Your task to perform on an android device: add a label to a message in the gmail app Image 0: 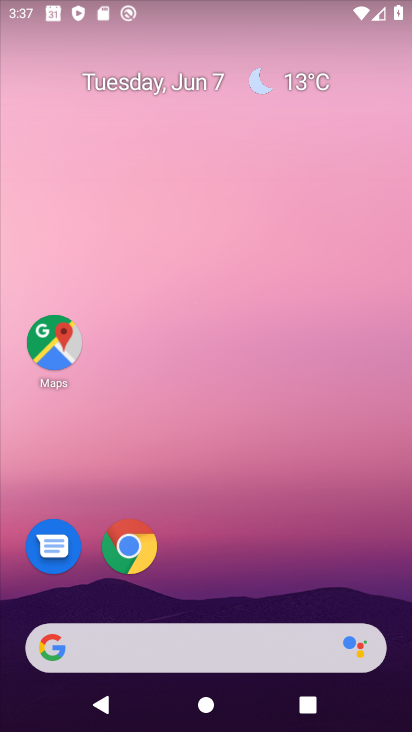
Step 0: drag from (205, 583) to (168, 139)
Your task to perform on an android device: add a label to a message in the gmail app Image 1: 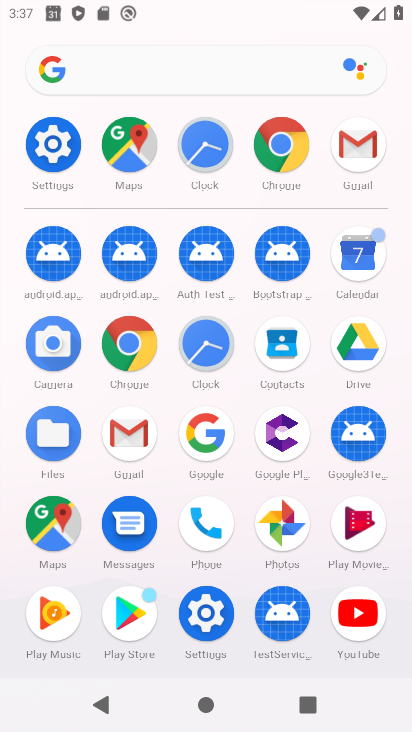
Step 1: click (336, 155)
Your task to perform on an android device: add a label to a message in the gmail app Image 2: 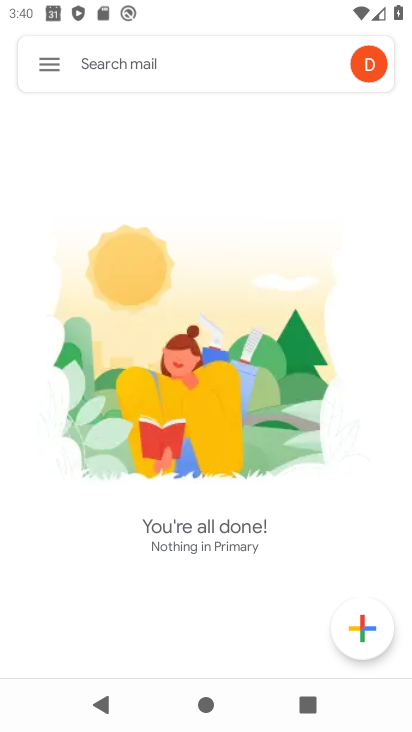
Step 2: task complete